Your task to perform on an android device: turn off notifications settings in the gmail app Image 0: 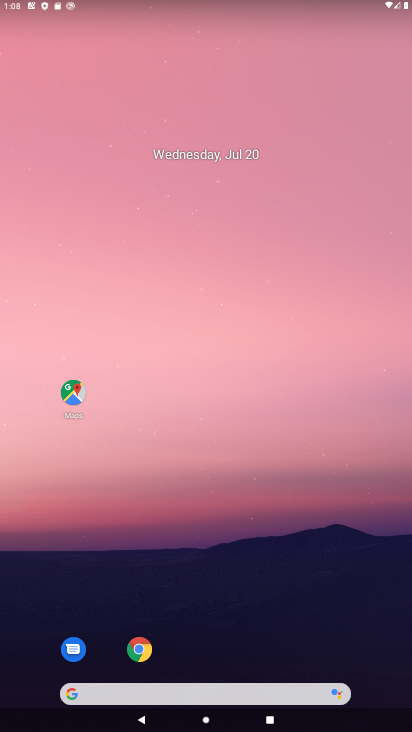
Step 0: press home button
Your task to perform on an android device: turn off notifications settings in the gmail app Image 1: 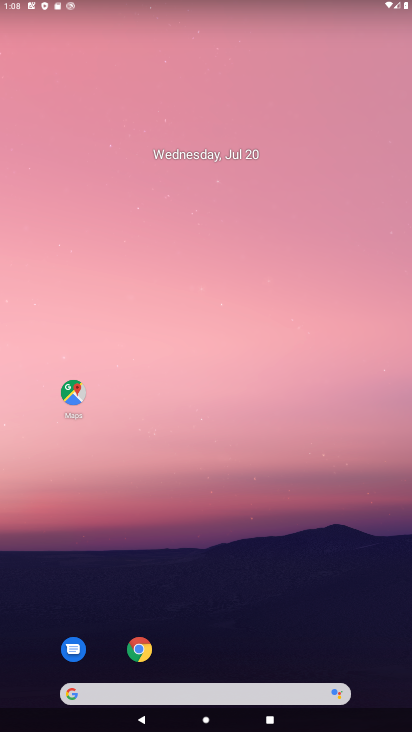
Step 1: drag from (305, 644) to (196, 29)
Your task to perform on an android device: turn off notifications settings in the gmail app Image 2: 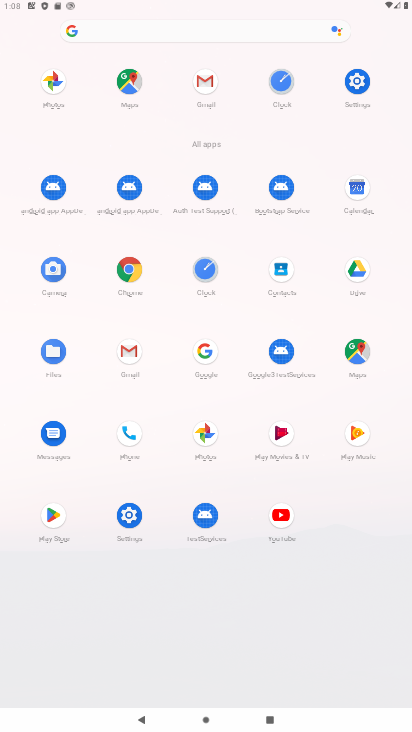
Step 2: click (146, 350)
Your task to perform on an android device: turn off notifications settings in the gmail app Image 3: 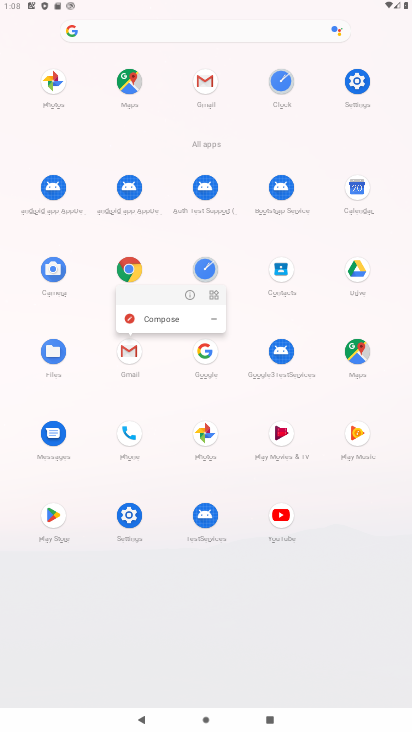
Step 3: click (181, 292)
Your task to perform on an android device: turn off notifications settings in the gmail app Image 4: 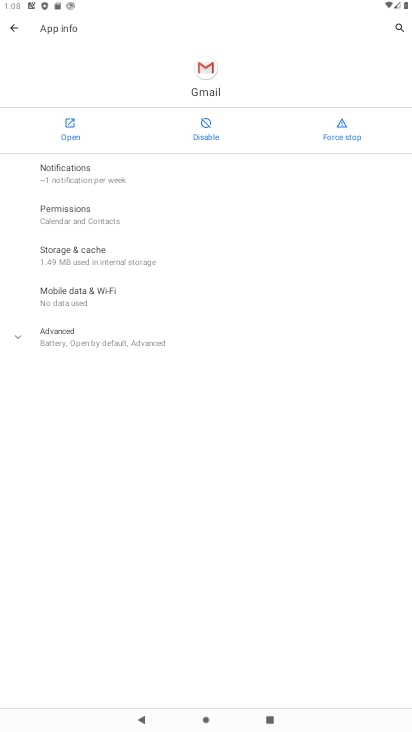
Step 4: click (60, 162)
Your task to perform on an android device: turn off notifications settings in the gmail app Image 5: 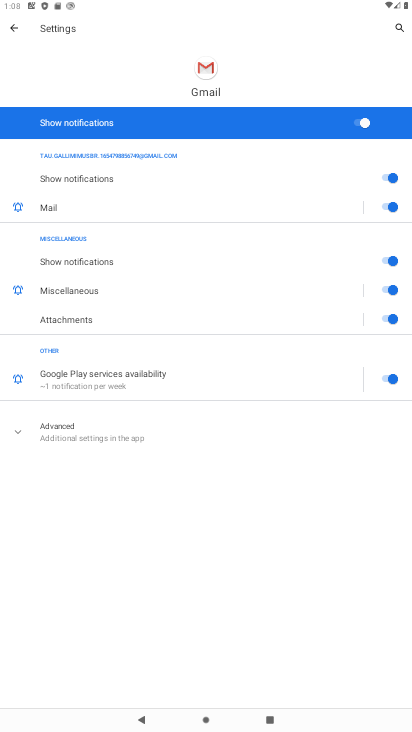
Step 5: click (339, 126)
Your task to perform on an android device: turn off notifications settings in the gmail app Image 6: 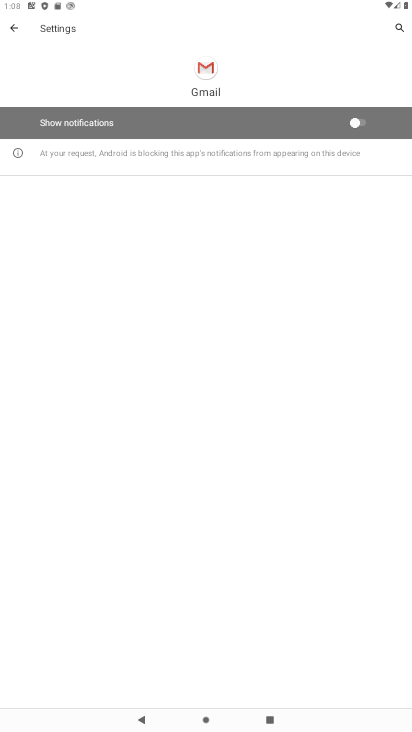
Step 6: task complete